Your task to perform on an android device: turn notification dots off Image 0: 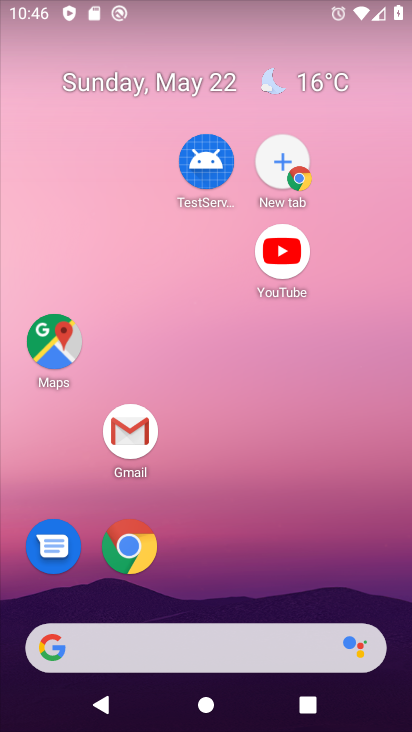
Step 0: drag from (281, 703) to (187, 68)
Your task to perform on an android device: turn notification dots off Image 1: 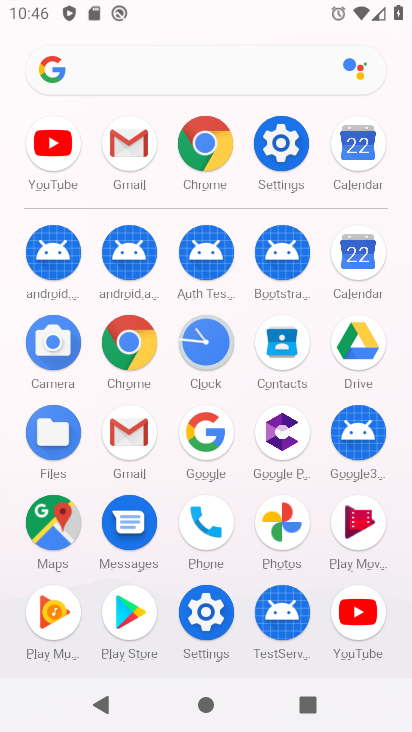
Step 1: click (281, 135)
Your task to perform on an android device: turn notification dots off Image 2: 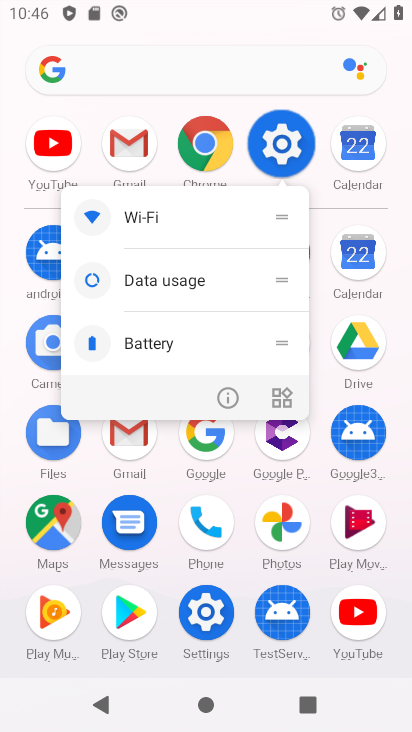
Step 2: click (281, 136)
Your task to perform on an android device: turn notification dots off Image 3: 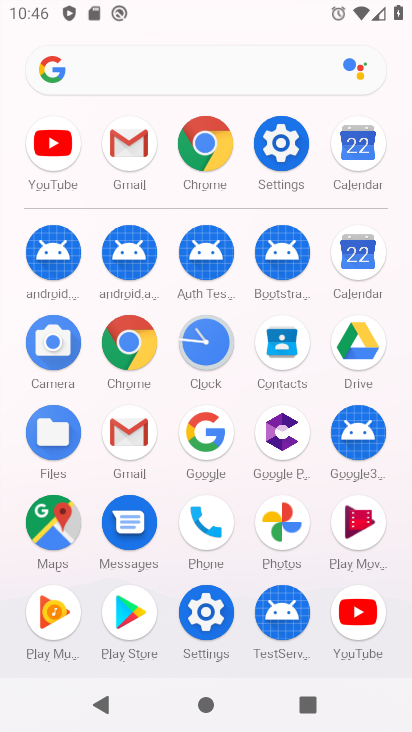
Step 3: click (281, 136)
Your task to perform on an android device: turn notification dots off Image 4: 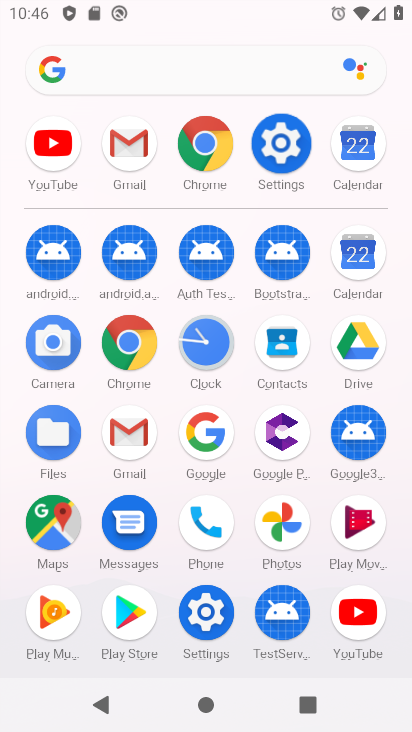
Step 4: click (281, 136)
Your task to perform on an android device: turn notification dots off Image 5: 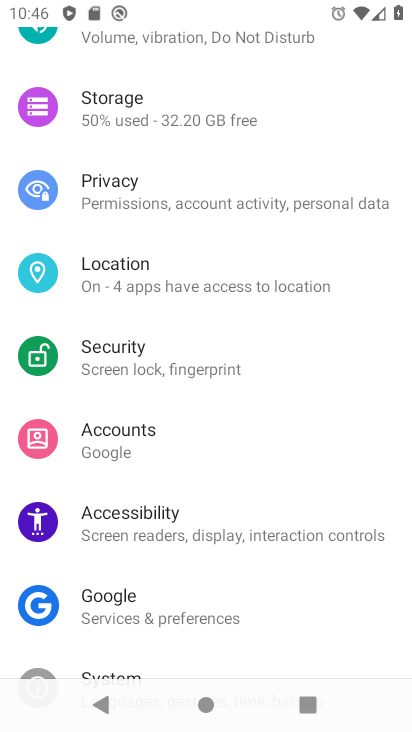
Step 5: drag from (153, 542) to (186, 29)
Your task to perform on an android device: turn notification dots off Image 6: 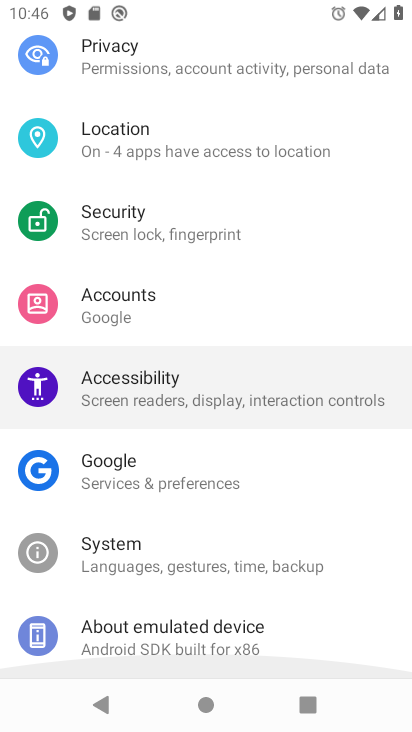
Step 6: drag from (164, 414) to (159, 196)
Your task to perform on an android device: turn notification dots off Image 7: 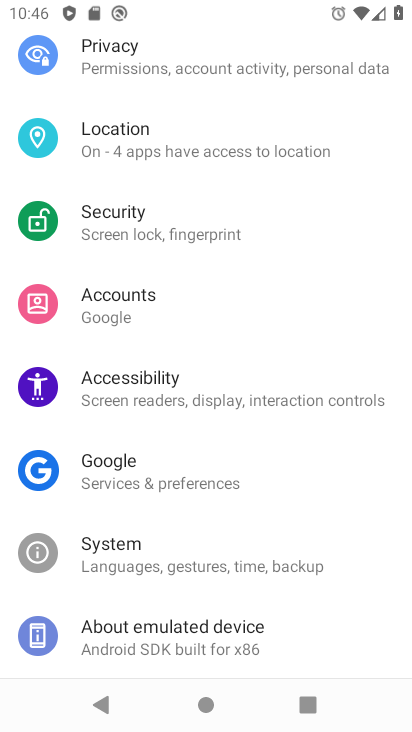
Step 7: drag from (137, 132) to (177, 430)
Your task to perform on an android device: turn notification dots off Image 8: 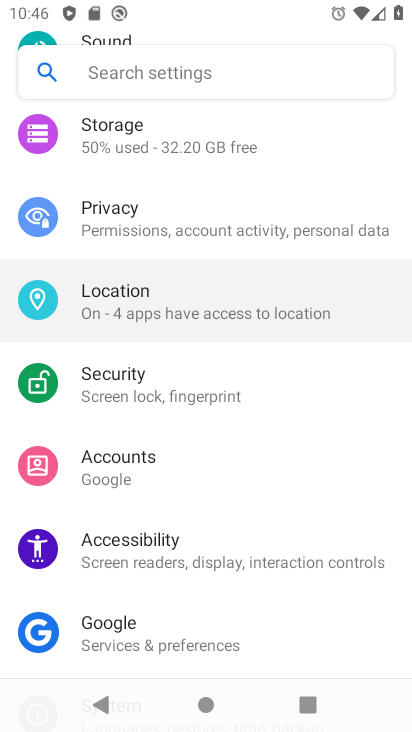
Step 8: drag from (145, 201) to (175, 421)
Your task to perform on an android device: turn notification dots off Image 9: 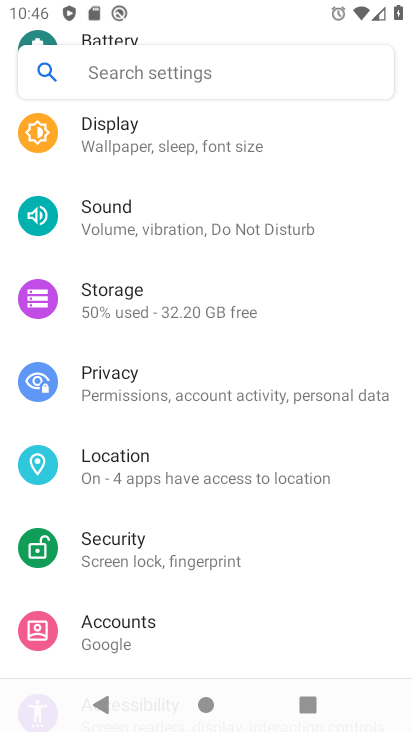
Step 9: drag from (153, 223) to (207, 473)
Your task to perform on an android device: turn notification dots off Image 10: 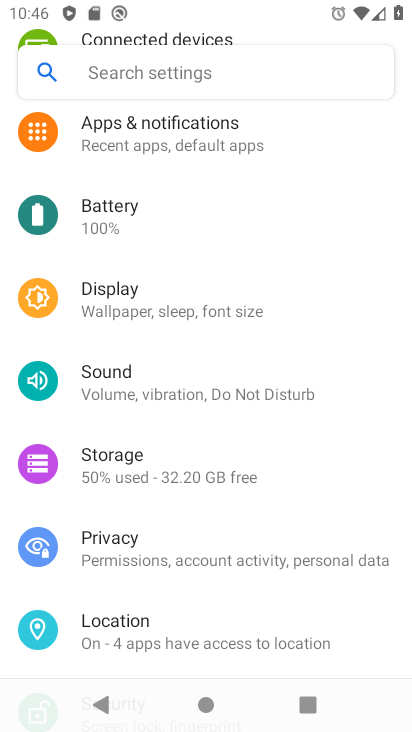
Step 10: drag from (203, 261) to (247, 607)
Your task to perform on an android device: turn notification dots off Image 11: 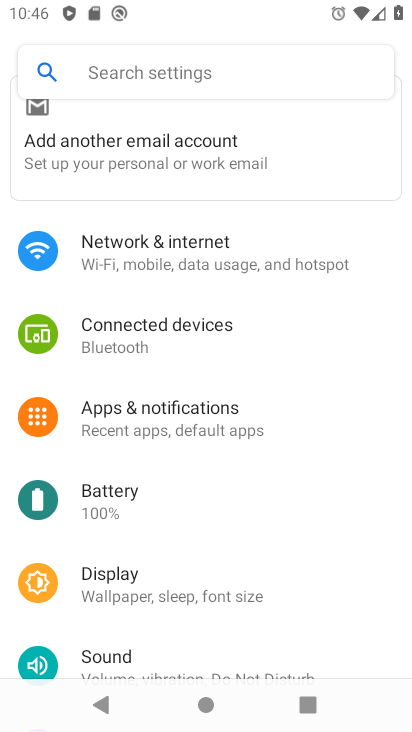
Step 11: drag from (143, 241) to (150, 493)
Your task to perform on an android device: turn notification dots off Image 12: 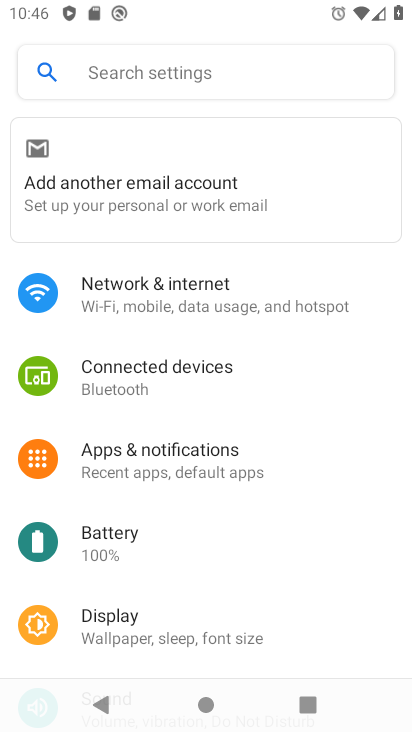
Step 12: click (160, 418)
Your task to perform on an android device: turn notification dots off Image 13: 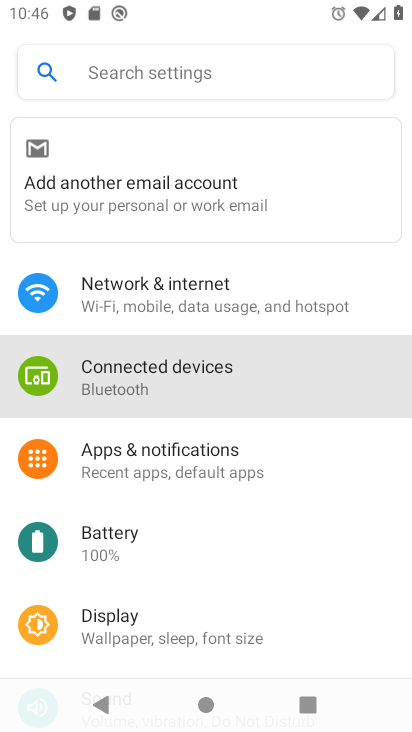
Step 13: click (172, 416)
Your task to perform on an android device: turn notification dots off Image 14: 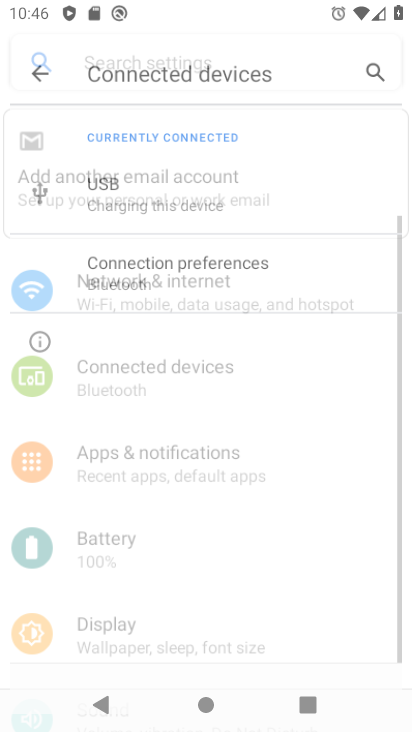
Step 14: click (175, 416)
Your task to perform on an android device: turn notification dots off Image 15: 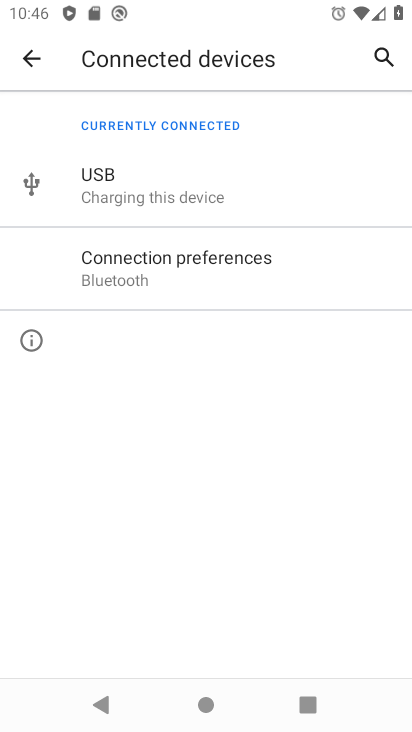
Step 15: click (29, 57)
Your task to perform on an android device: turn notification dots off Image 16: 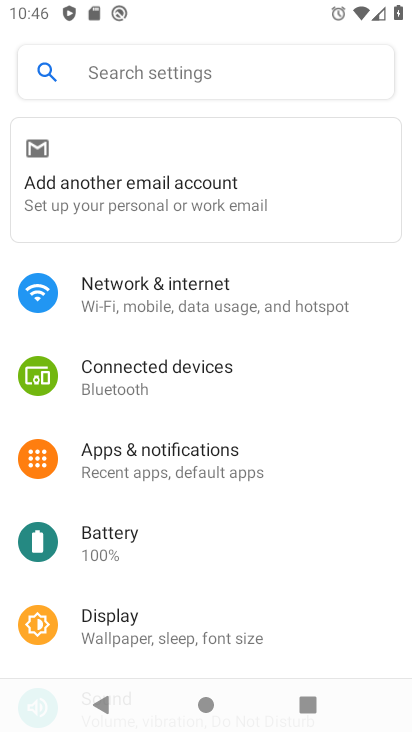
Step 16: click (178, 460)
Your task to perform on an android device: turn notification dots off Image 17: 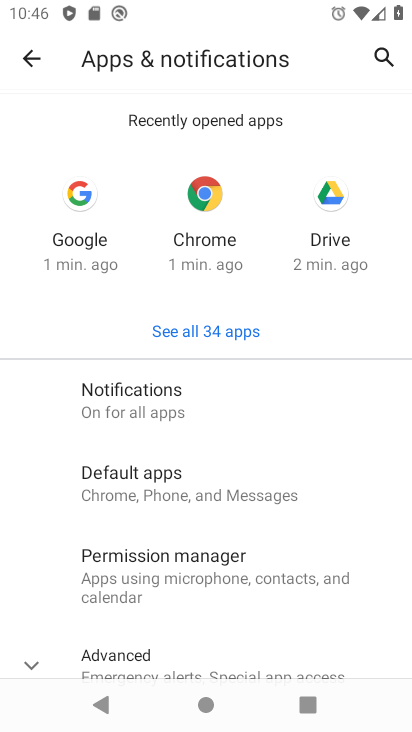
Step 17: click (141, 409)
Your task to perform on an android device: turn notification dots off Image 18: 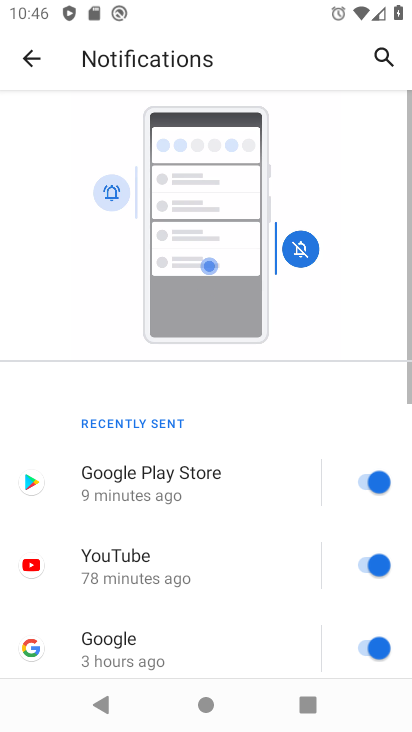
Step 18: drag from (180, 569) to (126, 348)
Your task to perform on an android device: turn notification dots off Image 19: 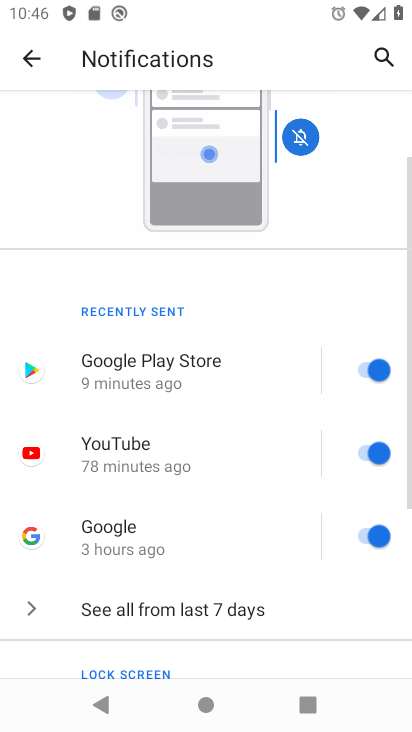
Step 19: drag from (178, 374) to (178, 213)
Your task to perform on an android device: turn notification dots off Image 20: 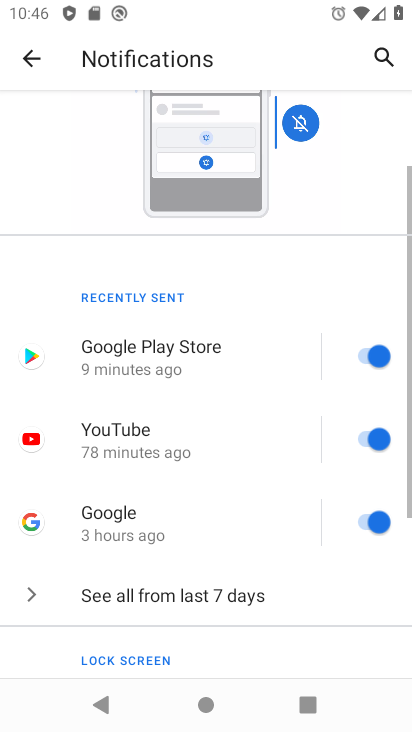
Step 20: drag from (162, 388) to (178, 157)
Your task to perform on an android device: turn notification dots off Image 21: 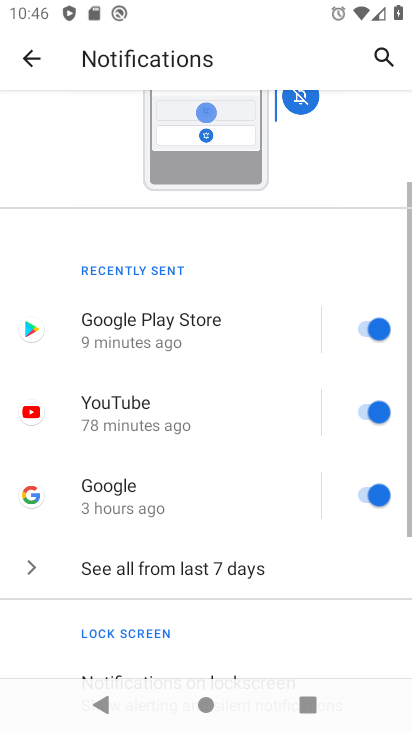
Step 21: drag from (198, 323) to (198, 123)
Your task to perform on an android device: turn notification dots off Image 22: 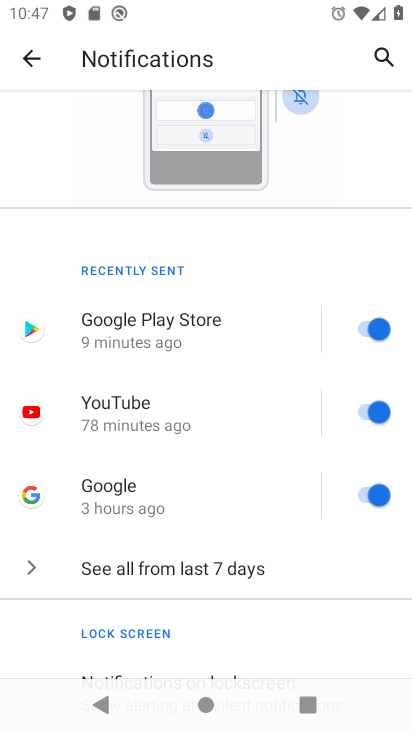
Step 22: drag from (187, 359) to (188, 69)
Your task to perform on an android device: turn notification dots off Image 23: 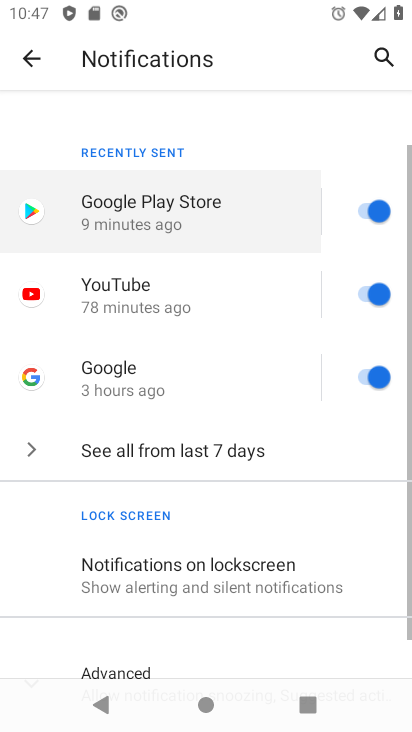
Step 23: drag from (205, 427) to (231, 243)
Your task to perform on an android device: turn notification dots off Image 24: 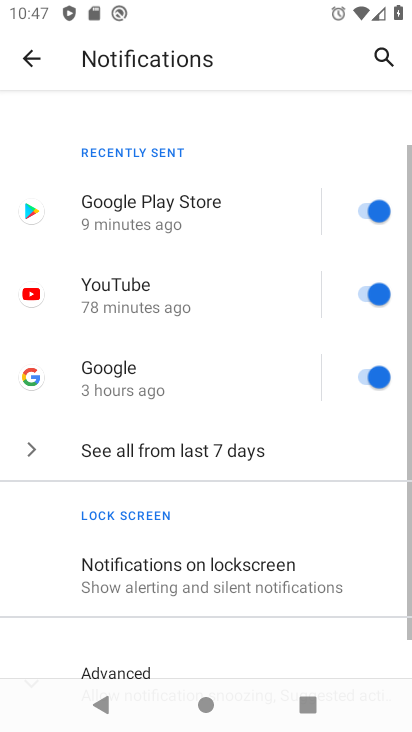
Step 24: drag from (248, 484) to (248, 240)
Your task to perform on an android device: turn notification dots off Image 25: 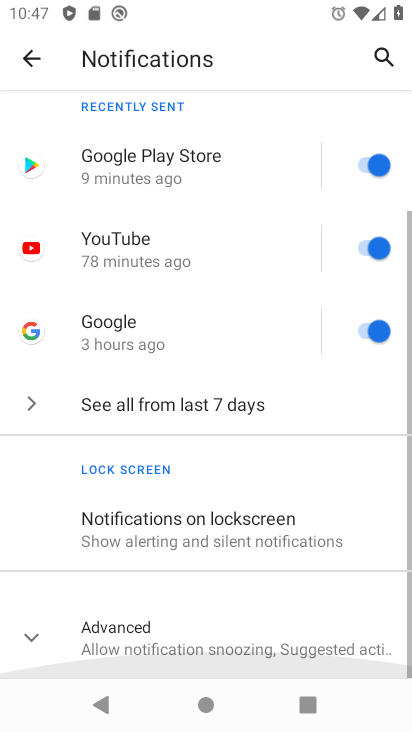
Step 25: drag from (246, 539) to (234, 195)
Your task to perform on an android device: turn notification dots off Image 26: 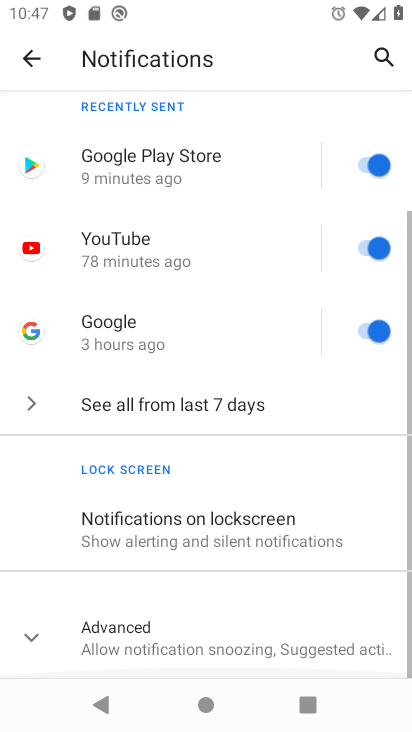
Step 26: drag from (191, 300) to (191, 200)
Your task to perform on an android device: turn notification dots off Image 27: 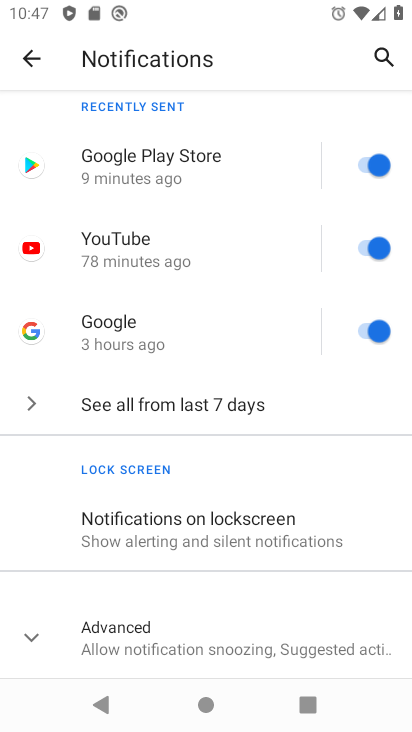
Step 27: click (138, 625)
Your task to perform on an android device: turn notification dots off Image 28: 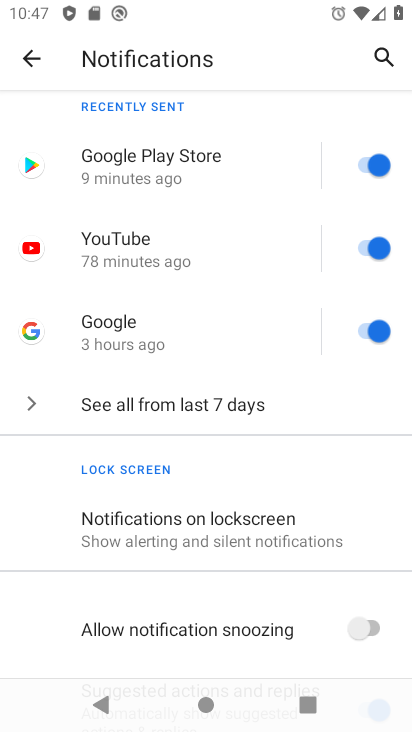
Step 28: drag from (188, 475) to (182, 164)
Your task to perform on an android device: turn notification dots off Image 29: 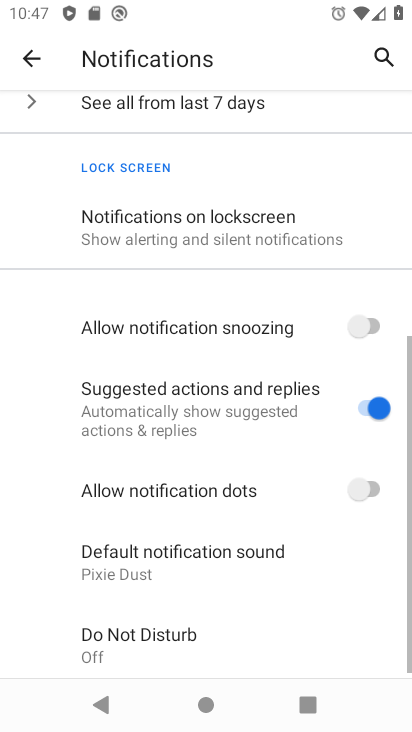
Step 29: drag from (214, 561) to (210, 249)
Your task to perform on an android device: turn notification dots off Image 30: 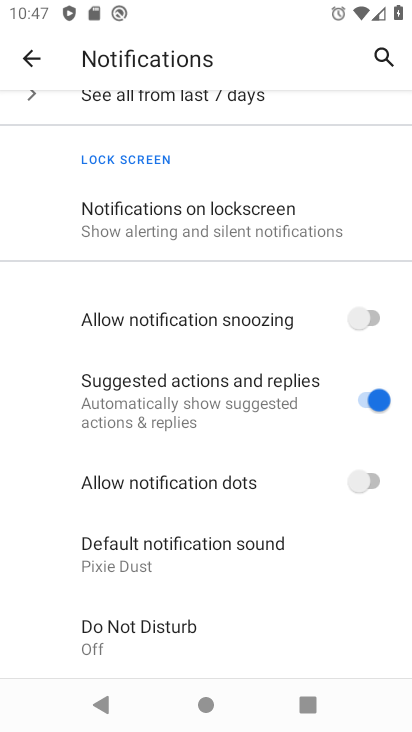
Step 30: click (357, 473)
Your task to perform on an android device: turn notification dots off Image 31: 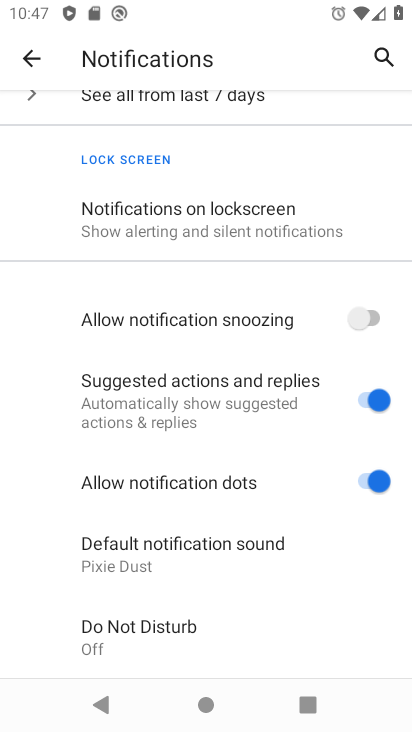
Step 31: task complete